Your task to perform on an android device: change the clock style Image 0: 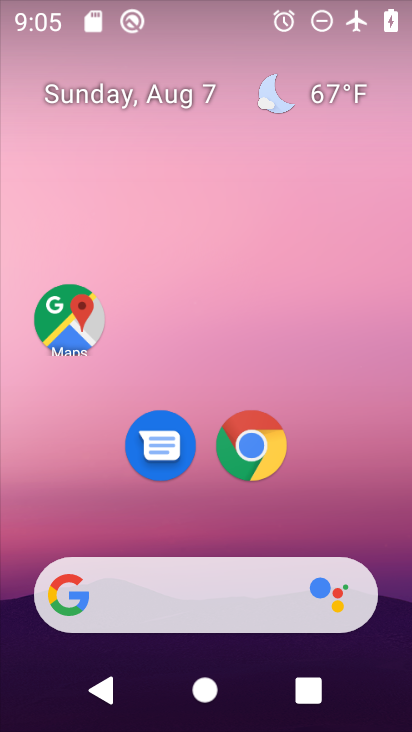
Step 0: press home button
Your task to perform on an android device: change the clock style Image 1: 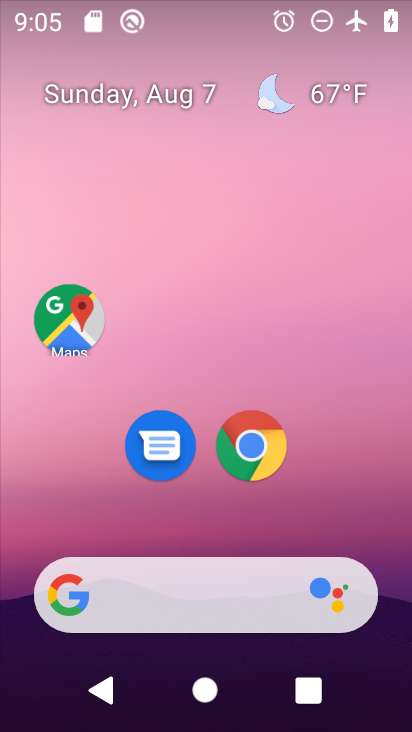
Step 1: press home button
Your task to perform on an android device: change the clock style Image 2: 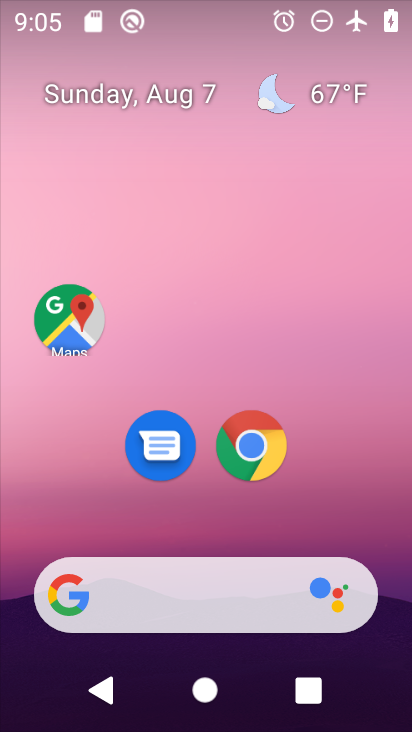
Step 2: drag from (209, 528) to (239, 71)
Your task to perform on an android device: change the clock style Image 3: 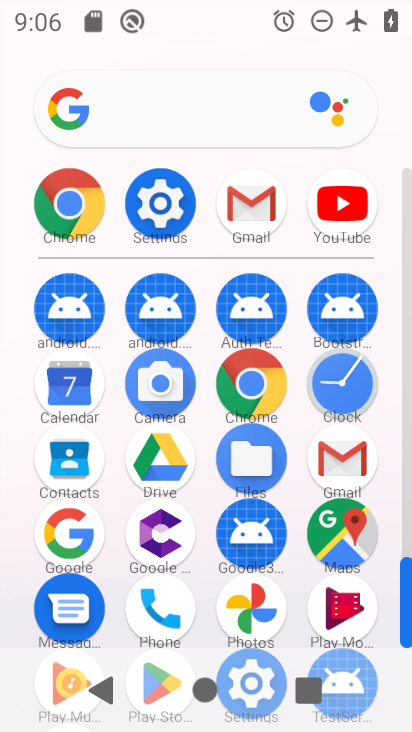
Step 3: click (339, 376)
Your task to perform on an android device: change the clock style Image 4: 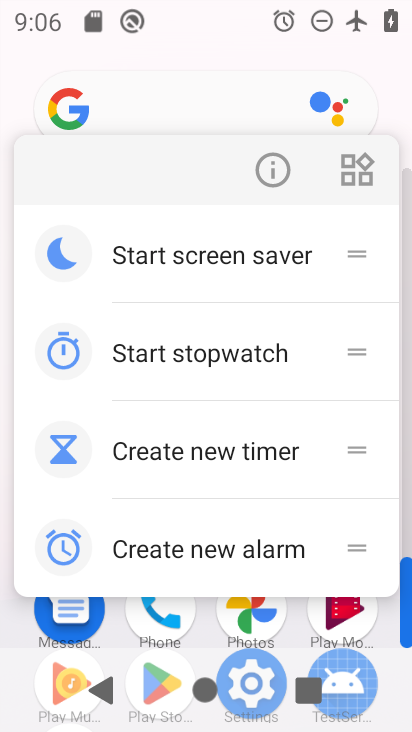
Step 4: click (288, 43)
Your task to perform on an android device: change the clock style Image 5: 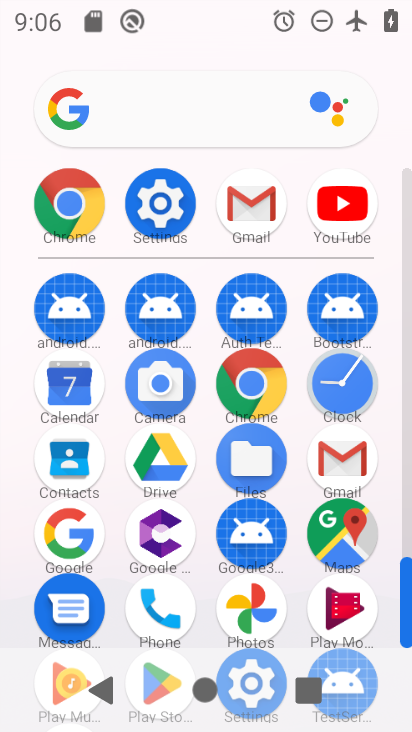
Step 5: click (345, 372)
Your task to perform on an android device: change the clock style Image 6: 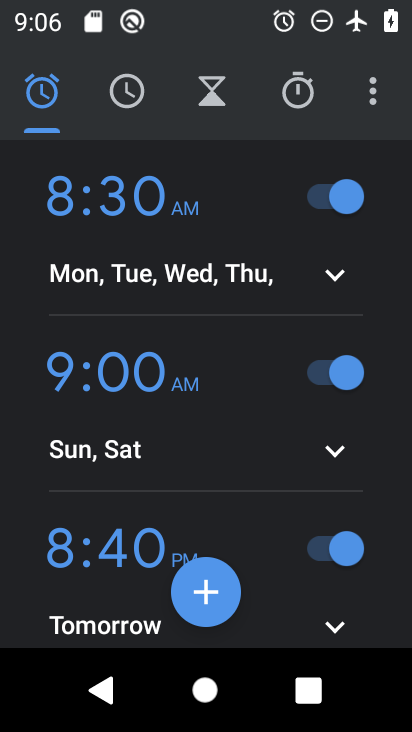
Step 6: click (380, 91)
Your task to perform on an android device: change the clock style Image 7: 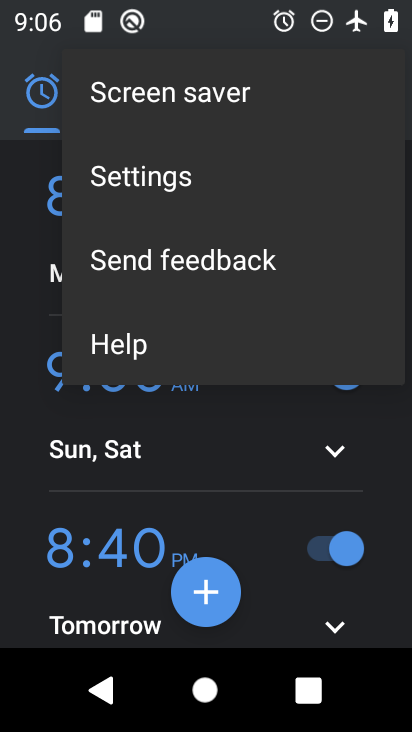
Step 7: click (250, 183)
Your task to perform on an android device: change the clock style Image 8: 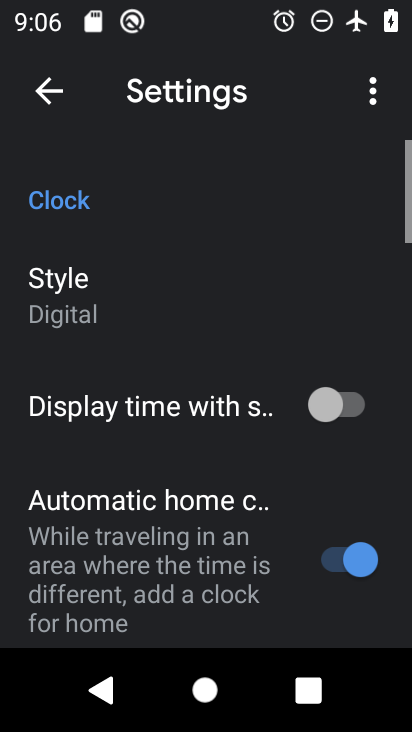
Step 8: click (118, 282)
Your task to perform on an android device: change the clock style Image 9: 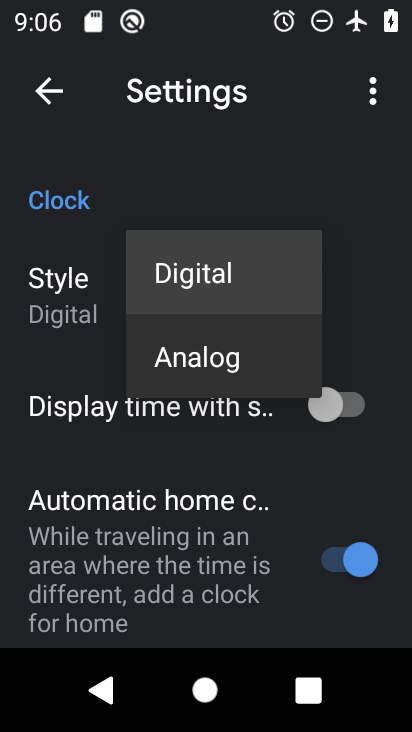
Step 9: click (203, 365)
Your task to perform on an android device: change the clock style Image 10: 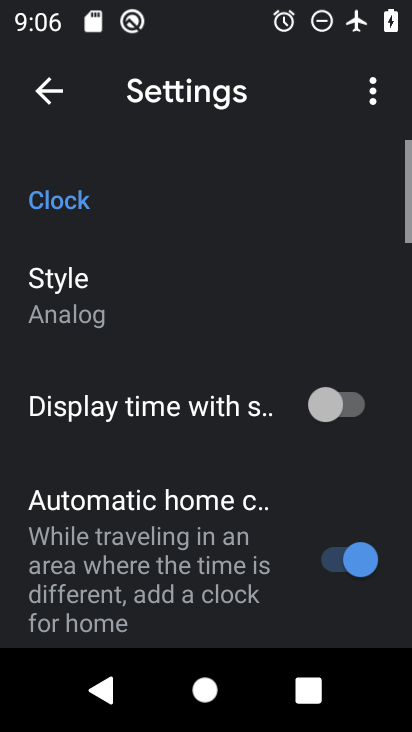
Step 10: task complete